Your task to perform on an android device: Open settings on Google Maps Image 0: 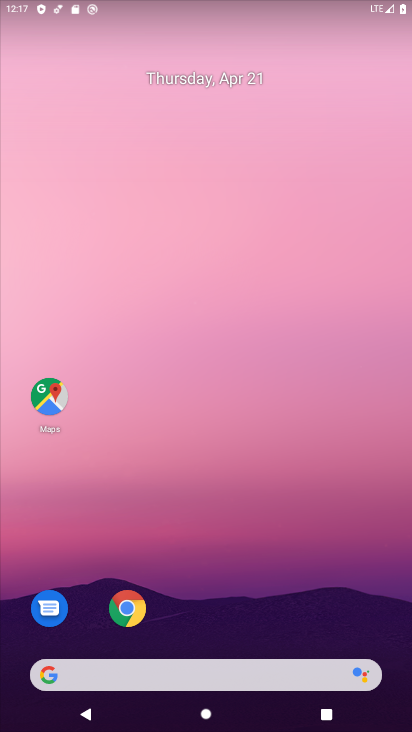
Step 0: click (40, 380)
Your task to perform on an android device: Open settings on Google Maps Image 1: 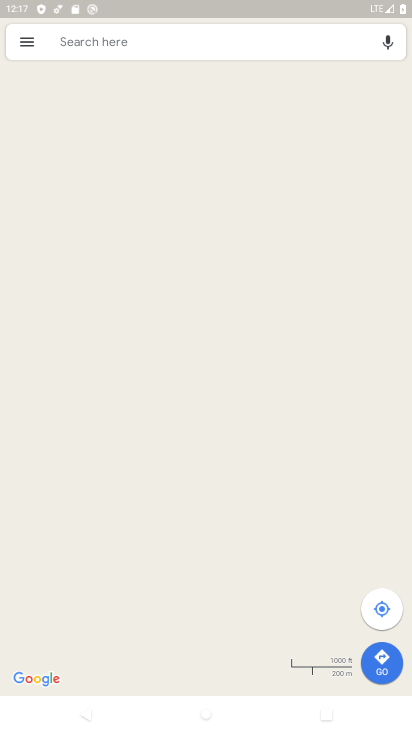
Step 1: click (25, 38)
Your task to perform on an android device: Open settings on Google Maps Image 2: 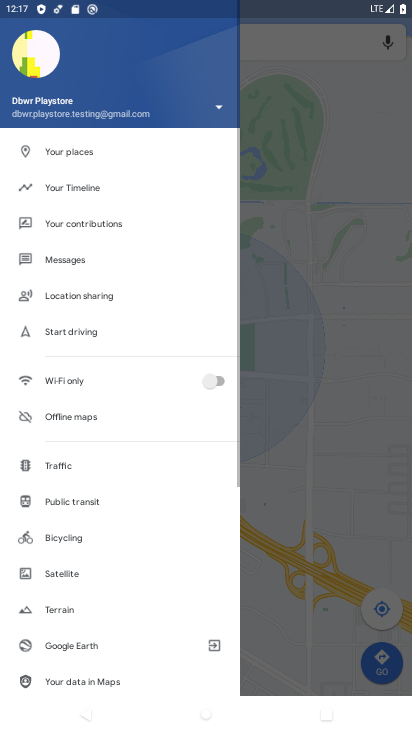
Step 2: drag from (156, 185) to (189, 50)
Your task to perform on an android device: Open settings on Google Maps Image 3: 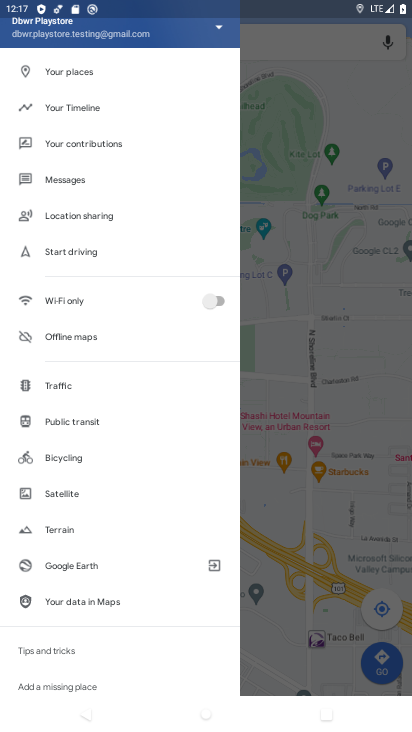
Step 3: drag from (108, 646) to (109, 200)
Your task to perform on an android device: Open settings on Google Maps Image 4: 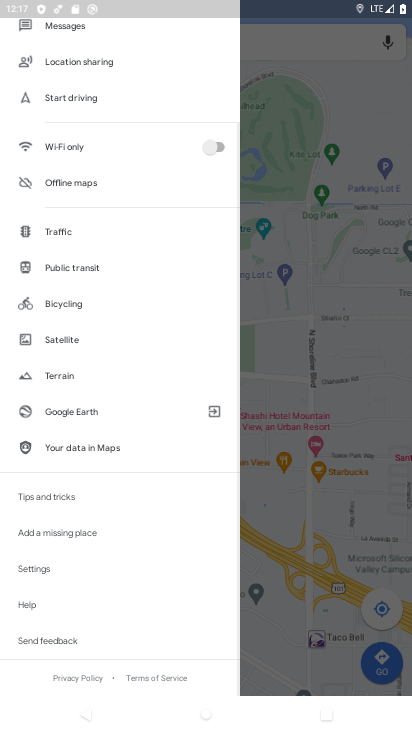
Step 4: click (51, 570)
Your task to perform on an android device: Open settings on Google Maps Image 5: 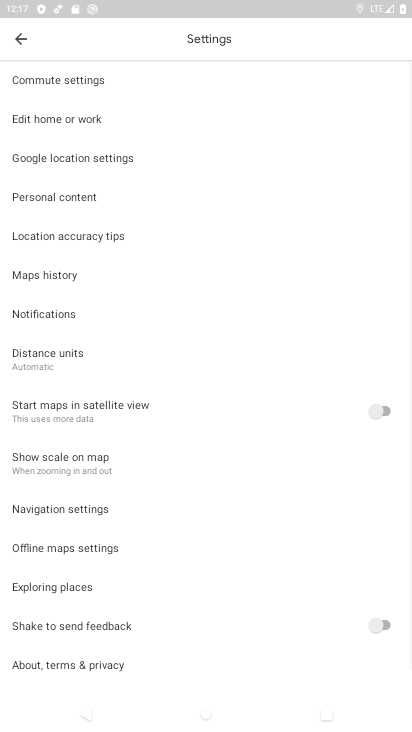
Step 5: drag from (219, 621) to (252, 62)
Your task to perform on an android device: Open settings on Google Maps Image 6: 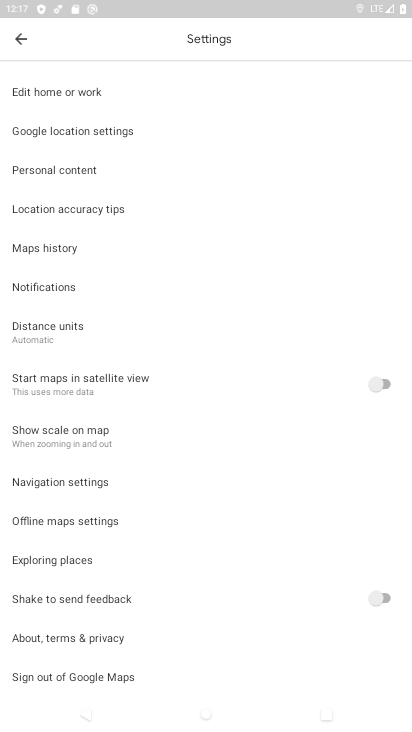
Step 6: click (255, 638)
Your task to perform on an android device: Open settings on Google Maps Image 7: 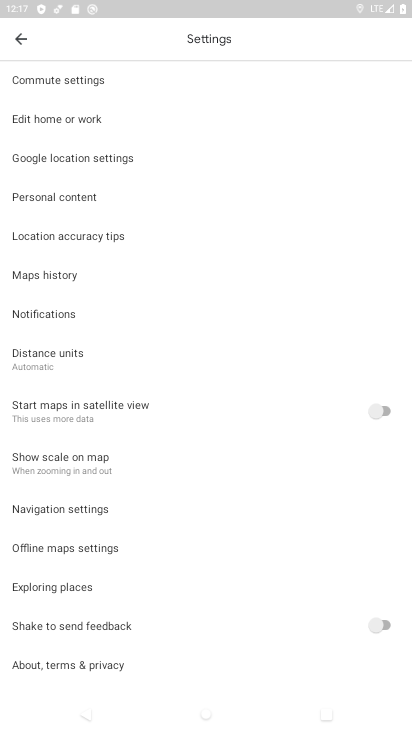
Step 7: task complete